Your task to perform on an android device: Show me productivity apps on the Play Store Image 0: 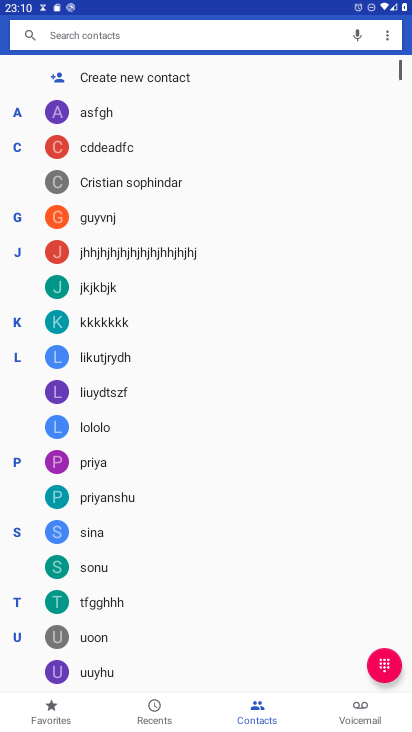
Step 0: press home button
Your task to perform on an android device: Show me productivity apps on the Play Store Image 1: 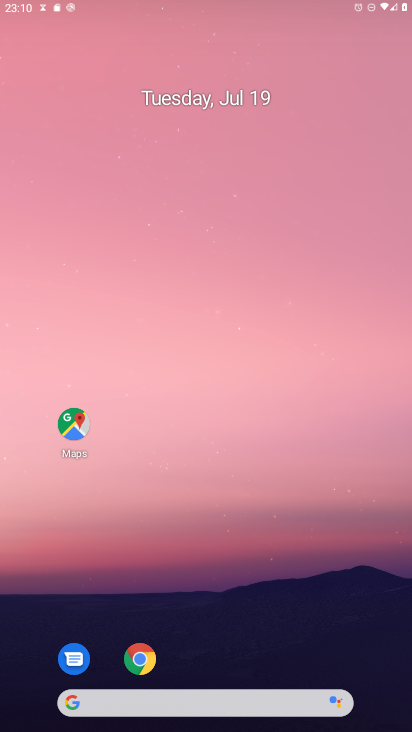
Step 1: drag from (227, 603) to (186, 126)
Your task to perform on an android device: Show me productivity apps on the Play Store Image 2: 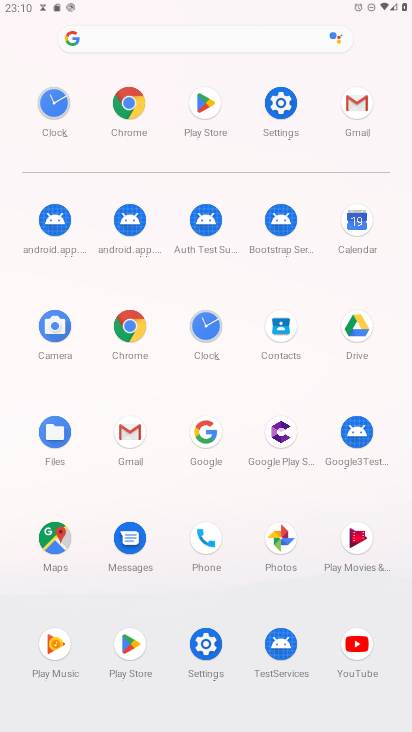
Step 2: click (127, 647)
Your task to perform on an android device: Show me productivity apps on the Play Store Image 3: 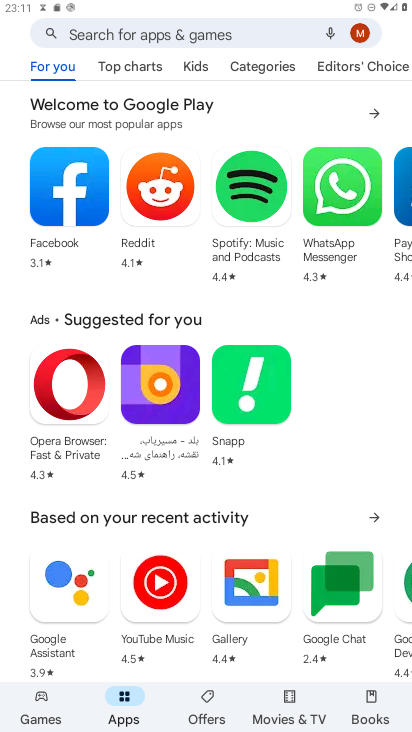
Step 3: task complete